Your task to perform on an android device: turn on bluetooth scan Image 0: 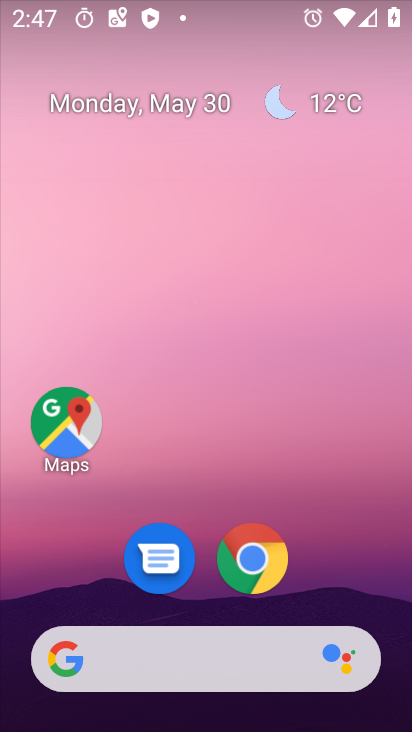
Step 0: drag from (87, 520) to (203, 122)
Your task to perform on an android device: turn on bluetooth scan Image 1: 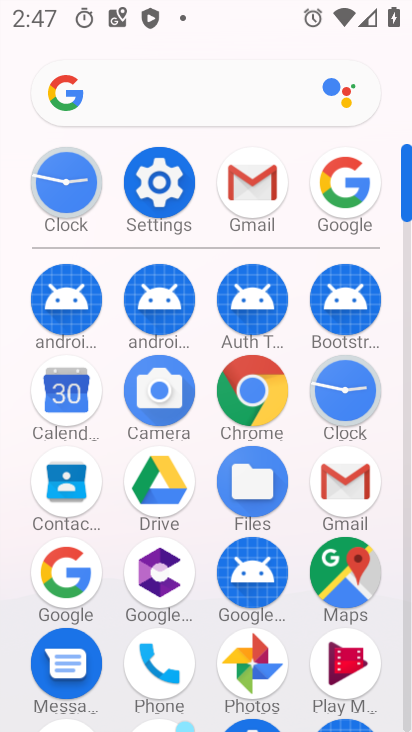
Step 1: click (176, 195)
Your task to perform on an android device: turn on bluetooth scan Image 2: 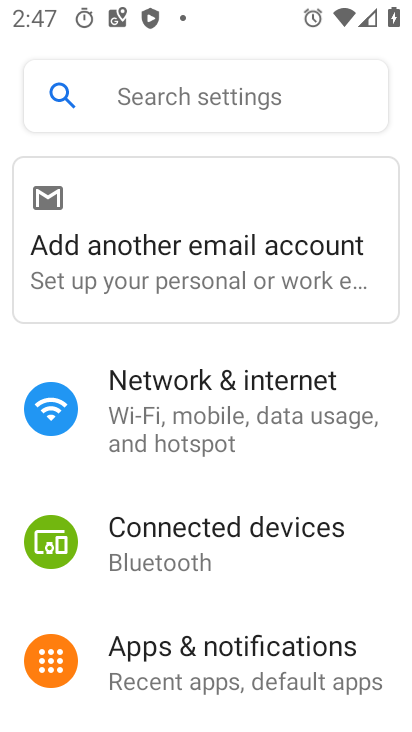
Step 2: click (215, 541)
Your task to perform on an android device: turn on bluetooth scan Image 3: 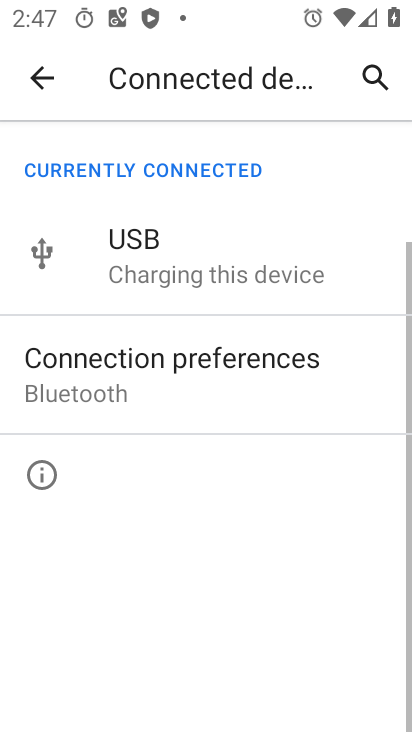
Step 3: click (143, 391)
Your task to perform on an android device: turn on bluetooth scan Image 4: 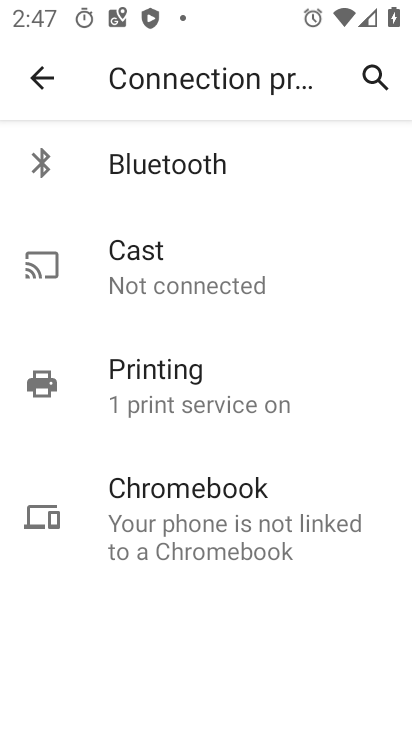
Step 4: click (168, 157)
Your task to perform on an android device: turn on bluetooth scan Image 5: 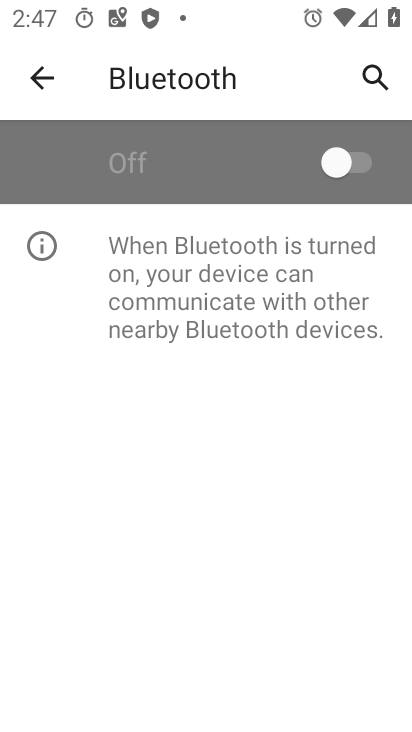
Step 5: click (328, 155)
Your task to perform on an android device: turn on bluetooth scan Image 6: 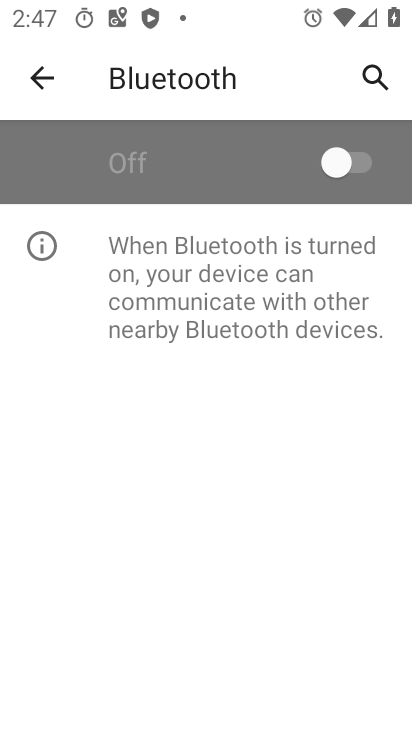
Step 6: task complete